Your task to perform on an android device: remove spam from my inbox in the gmail app Image 0: 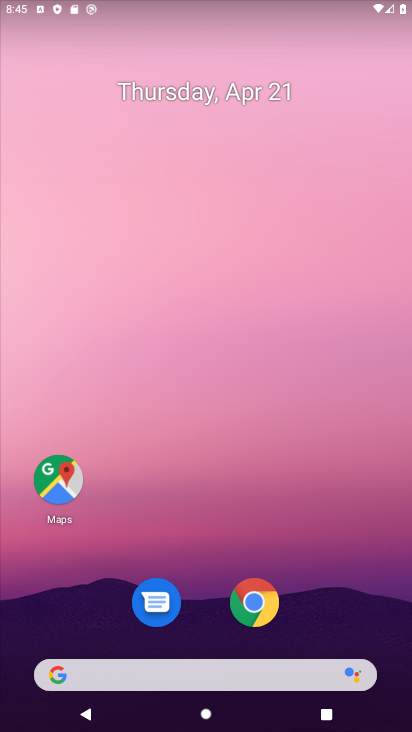
Step 0: drag from (223, 633) to (217, 173)
Your task to perform on an android device: remove spam from my inbox in the gmail app Image 1: 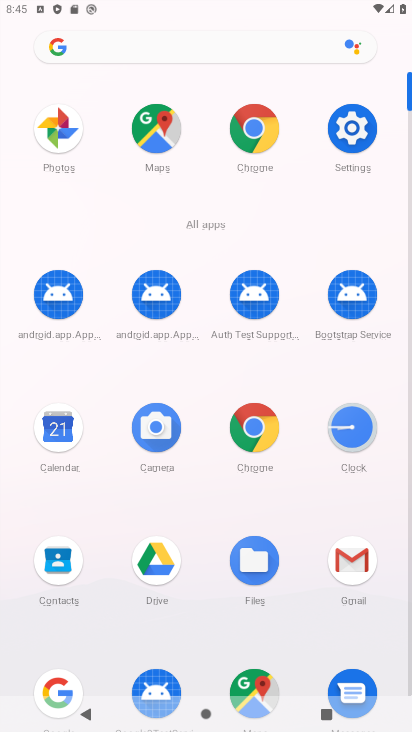
Step 1: click (345, 575)
Your task to perform on an android device: remove spam from my inbox in the gmail app Image 2: 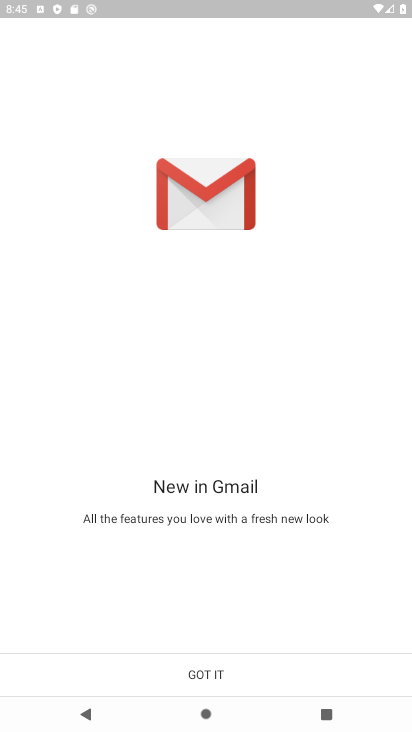
Step 2: click (291, 662)
Your task to perform on an android device: remove spam from my inbox in the gmail app Image 3: 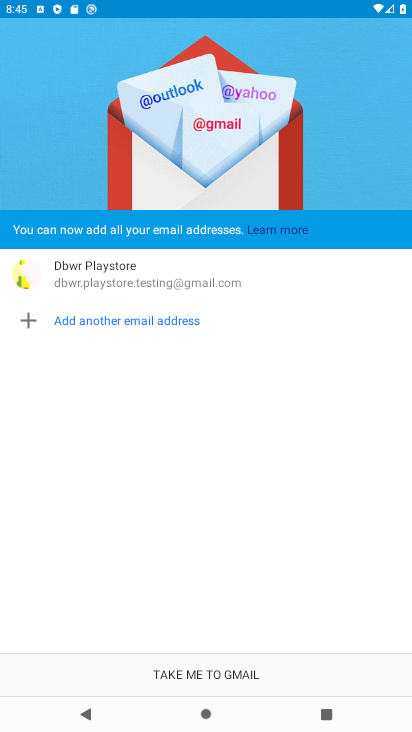
Step 3: click (291, 662)
Your task to perform on an android device: remove spam from my inbox in the gmail app Image 4: 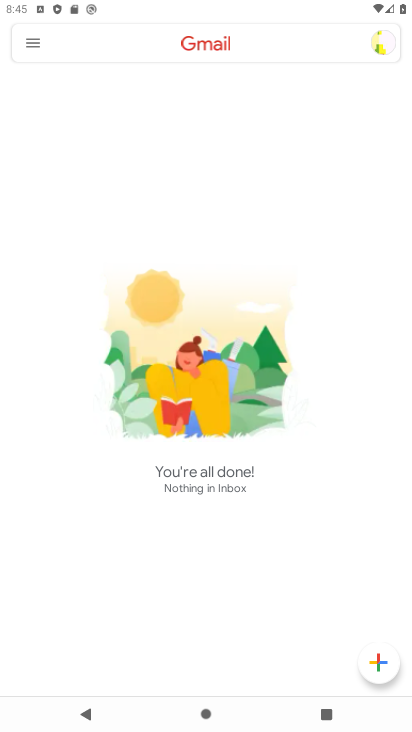
Step 4: click (37, 48)
Your task to perform on an android device: remove spam from my inbox in the gmail app Image 5: 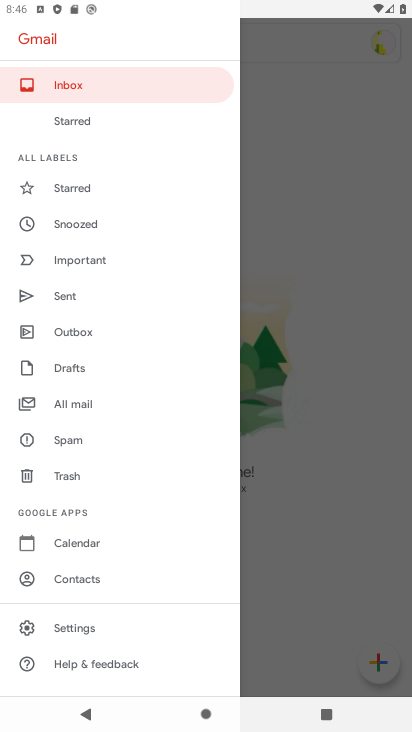
Step 5: click (93, 454)
Your task to perform on an android device: remove spam from my inbox in the gmail app Image 6: 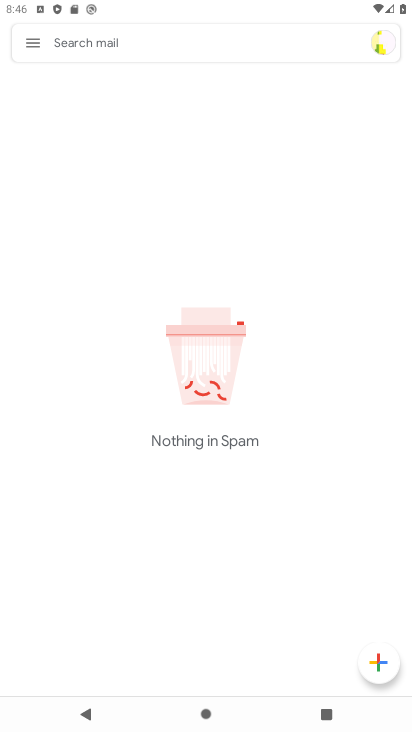
Step 6: task complete